Your task to perform on an android device: Open Chrome and go to the settings page Image 0: 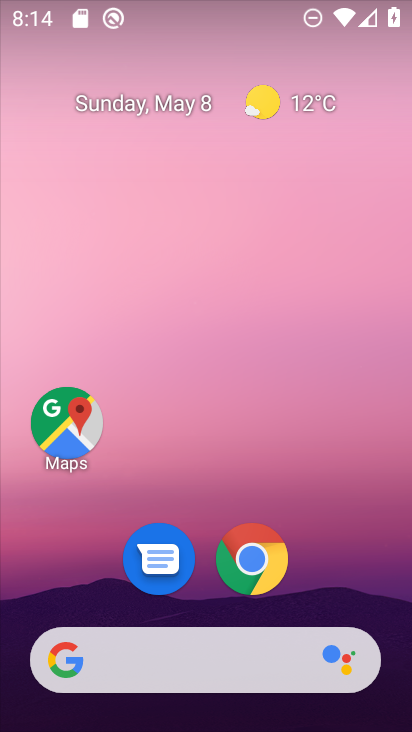
Step 0: click (263, 571)
Your task to perform on an android device: Open Chrome and go to the settings page Image 1: 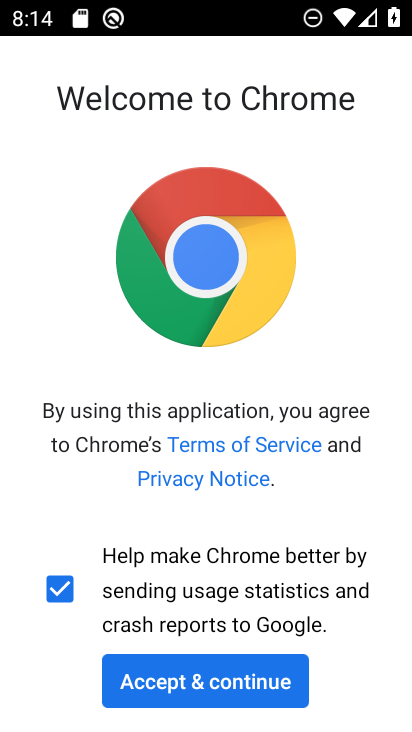
Step 1: click (233, 679)
Your task to perform on an android device: Open Chrome and go to the settings page Image 2: 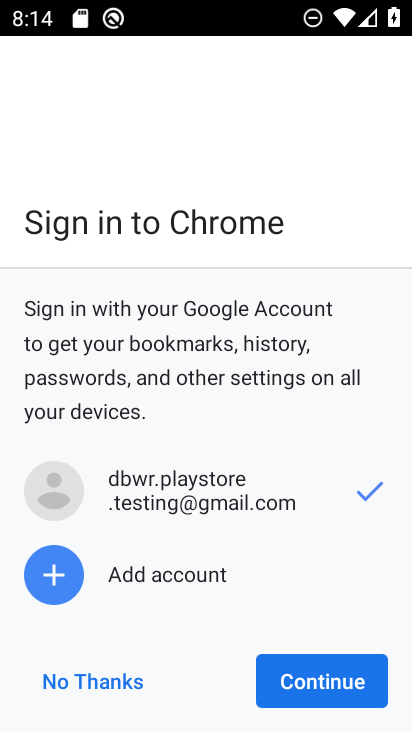
Step 2: click (66, 698)
Your task to perform on an android device: Open Chrome and go to the settings page Image 3: 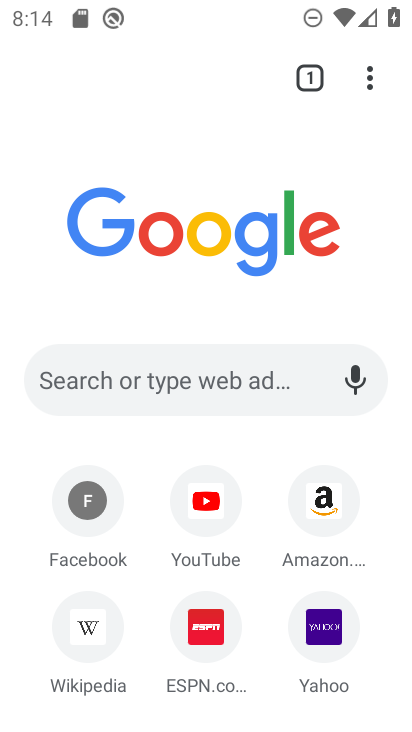
Step 3: task complete